Your task to perform on an android device: Open Android settings Image 0: 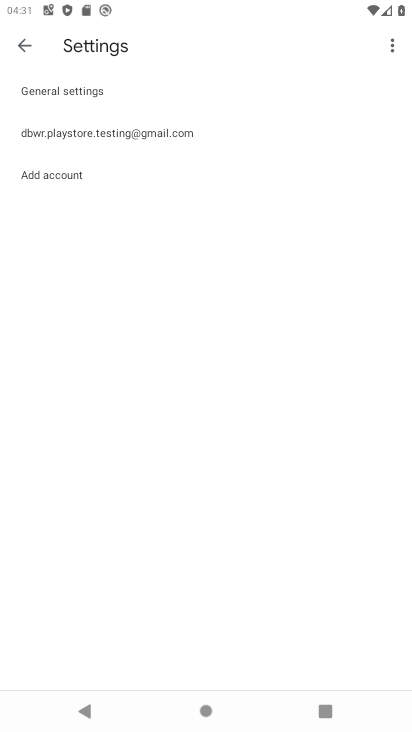
Step 0: press home button
Your task to perform on an android device: Open Android settings Image 1: 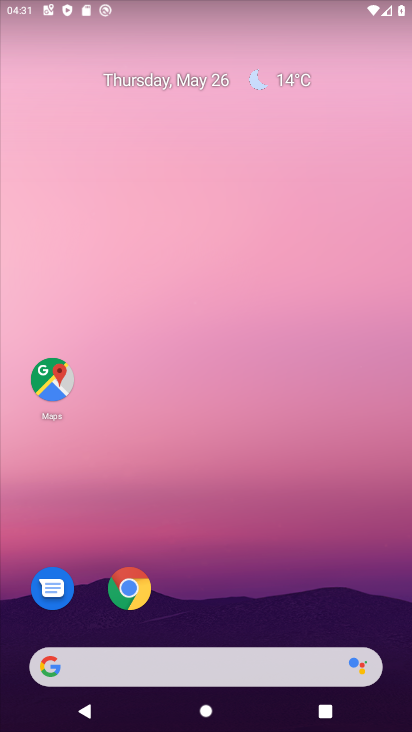
Step 1: drag from (265, 619) to (288, 131)
Your task to perform on an android device: Open Android settings Image 2: 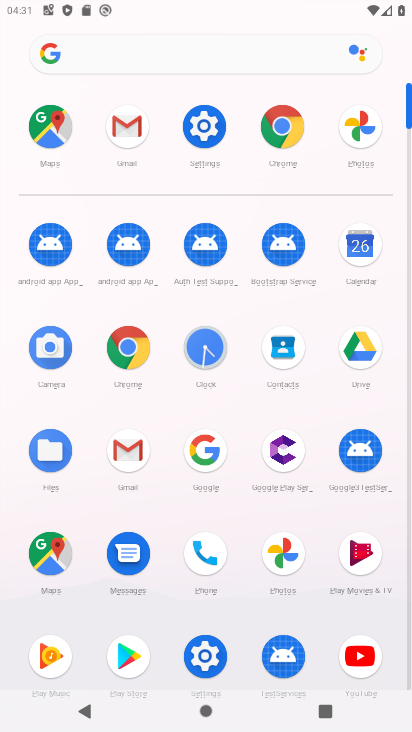
Step 2: click (190, 127)
Your task to perform on an android device: Open Android settings Image 3: 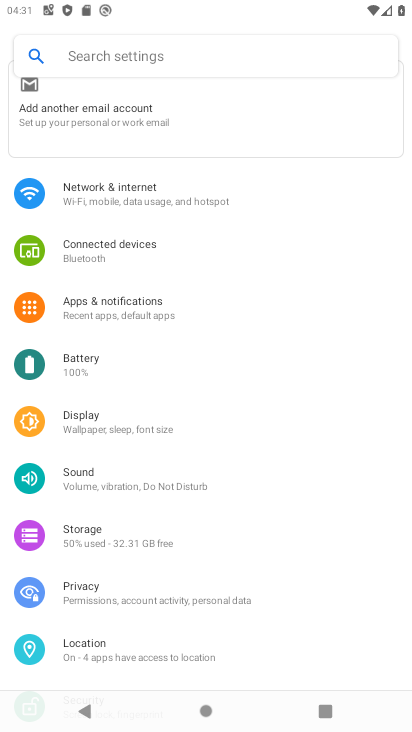
Step 3: task complete